Your task to perform on an android device: Open settings on Google Maps Image 0: 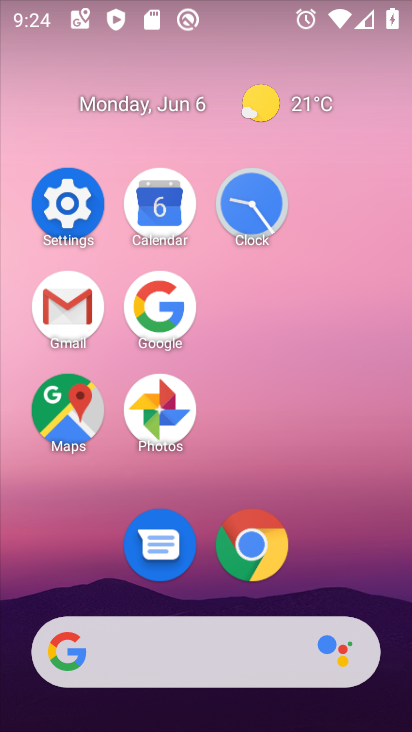
Step 0: click (58, 418)
Your task to perform on an android device: Open settings on Google Maps Image 1: 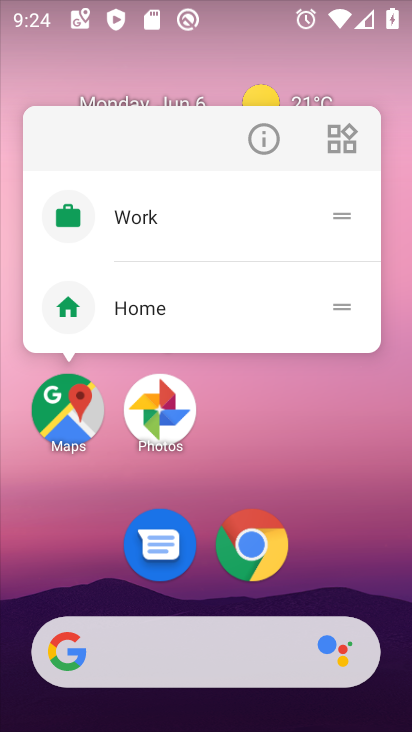
Step 1: click (58, 416)
Your task to perform on an android device: Open settings on Google Maps Image 2: 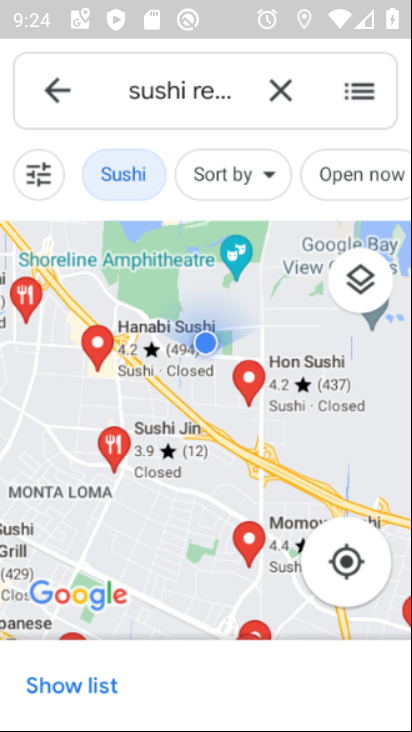
Step 2: click (44, 88)
Your task to perform on an android device: Open settings on Google Maps Image 3: 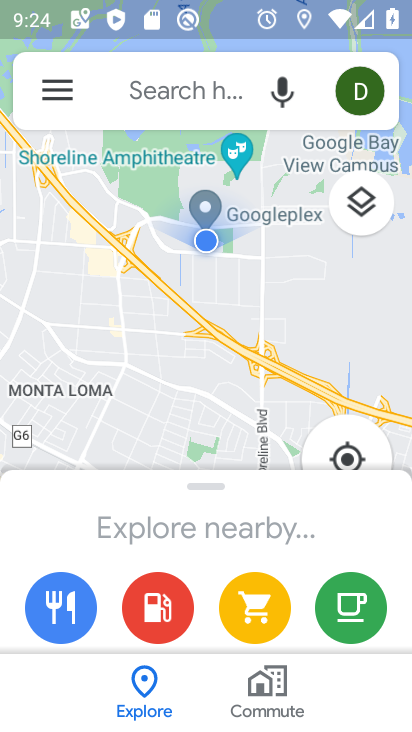
Step 3: click (52, 96)
Your task to perform on an android device: Open settings on Google Maps Image 4: 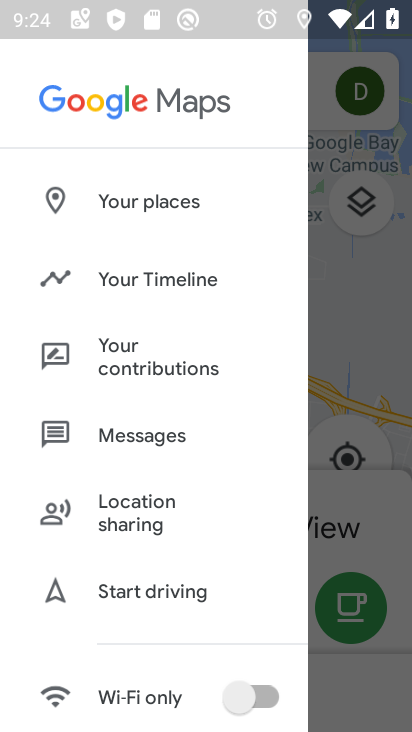
Step 4: drag from (195, 545) to (232, 120)
Your task to perform on an android device: Open settings on Google Maps Image 5: 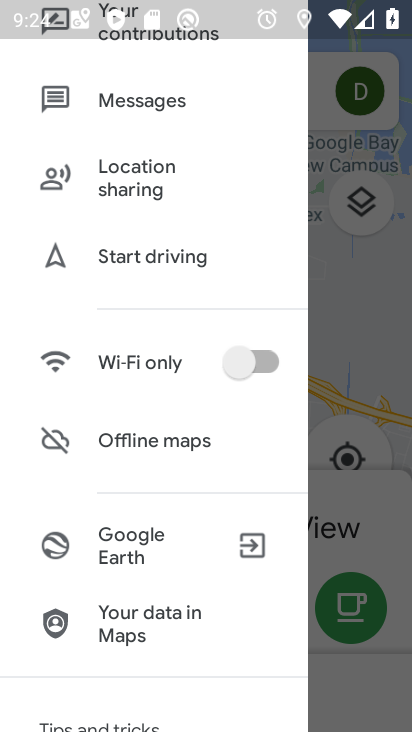
Step 5: drag from (167, 536) to (197, 183)
Your task to perform on an android device: Open settings on Google Maps Image 6: 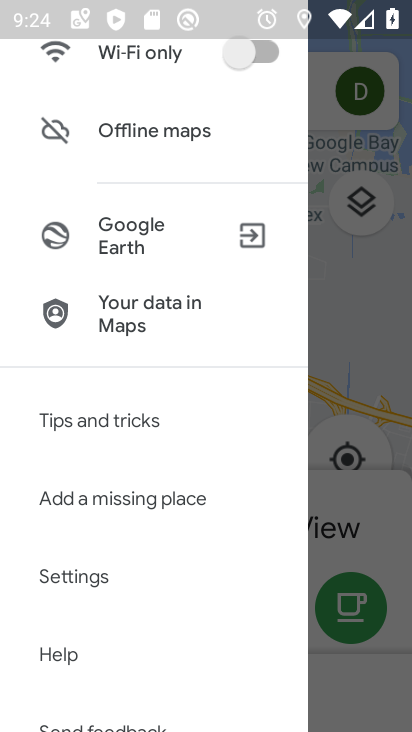
Step 6: click (123, 564)
Your task to perform on an android device: Open settings on Google Maps Image 7: 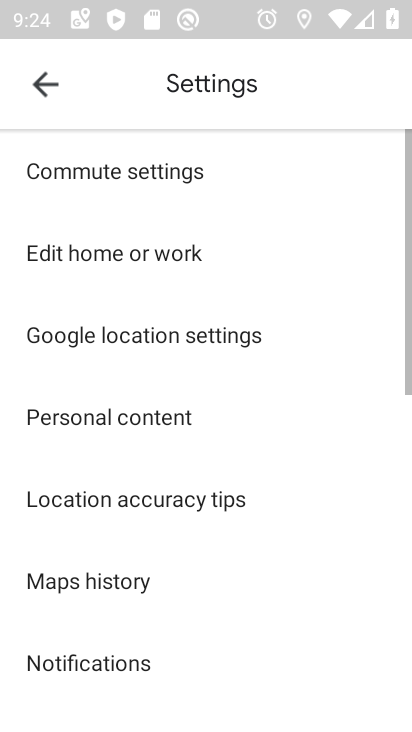
Step 7: task complete